Your task to perform on an android device: change the clock display to digital Image 0: 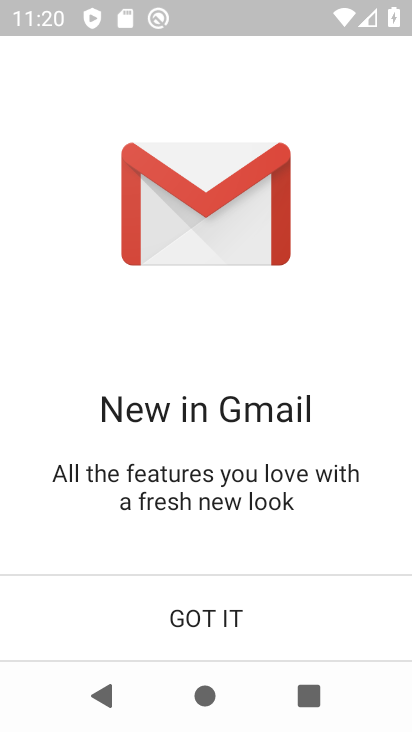
Step 0: press home button
Your task to perform on an android device: change the clock display to digital Image 1: 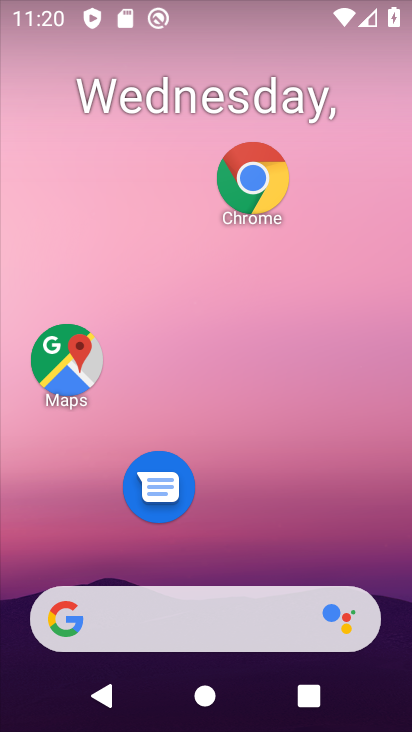
Step 1: drag from (305, 520) to (305, 36)
Your task to perform on an android device: change the clock display to digital Image 2: 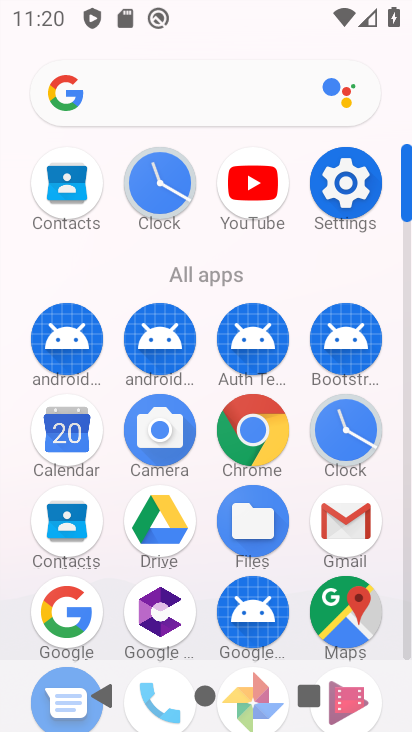
Step 2: click (158, 187)
Your task to perform on an android device: change the clock display to digital Image 3: 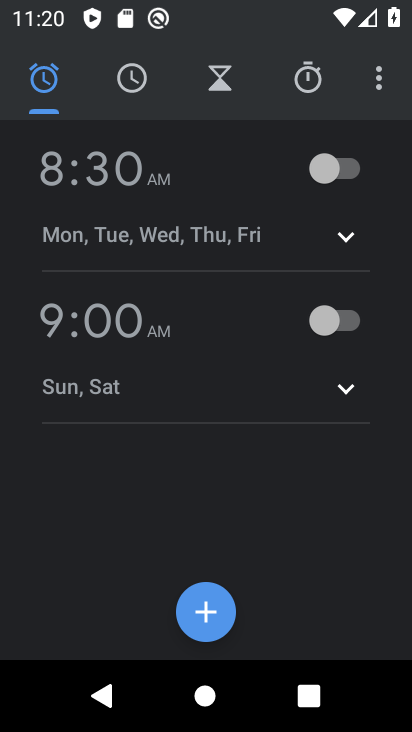
Step 3: click (383, 81)
Your task to perform on an android device: change the clock display to digital Image 4: 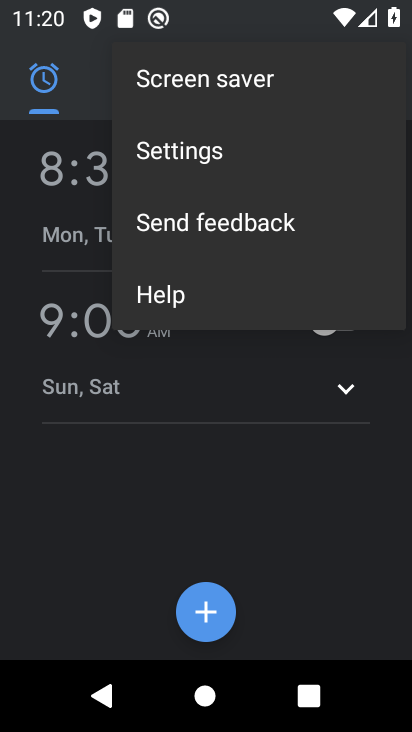
Step 4: click (224, 145)
Your task to perform on an android device: change the clock display to digital Image 5: 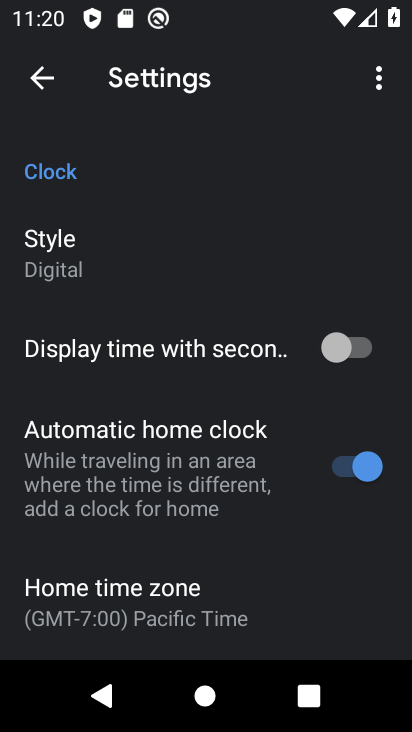
Step 5: click (98, 245)
Your task to perform on an android device: change the clock display to digital Image 6: 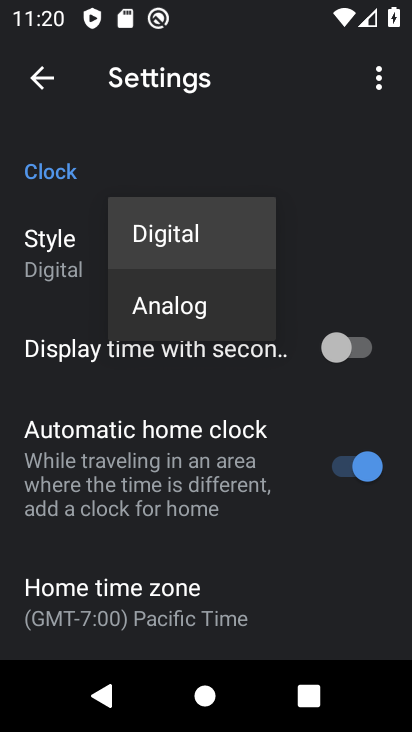
Step 6: click (165, 300)
Your task to perform on an android device: change the clock display to digital Image 7: 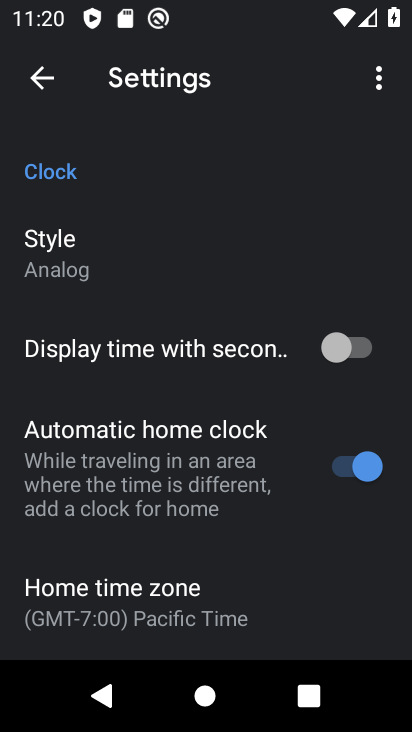
Step 7: task complete